Your task to perform on an android device: clear history in the chrome app Image 0: 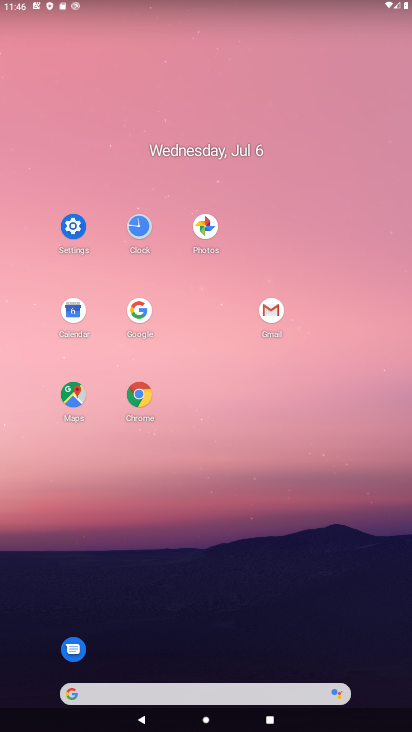
Step 0: click (141, 404)
Your task to perform on an android device: clear history in the chrome app Image 1: 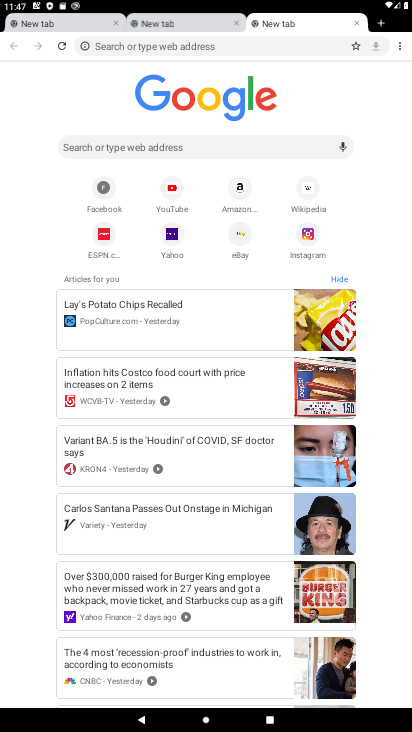
Step 1: click (401, 47)
Your task to perform on an android device: clear history in the chrome app Image 2: 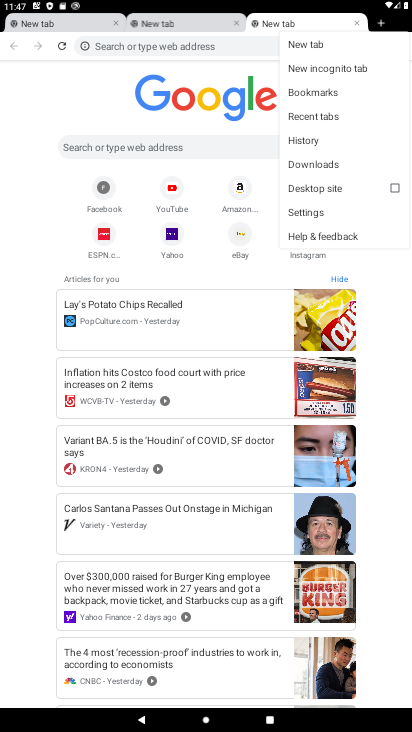
Step 2: click (343, 211)
Your task to perform on an android device: clear history in the chrome app Image 3: 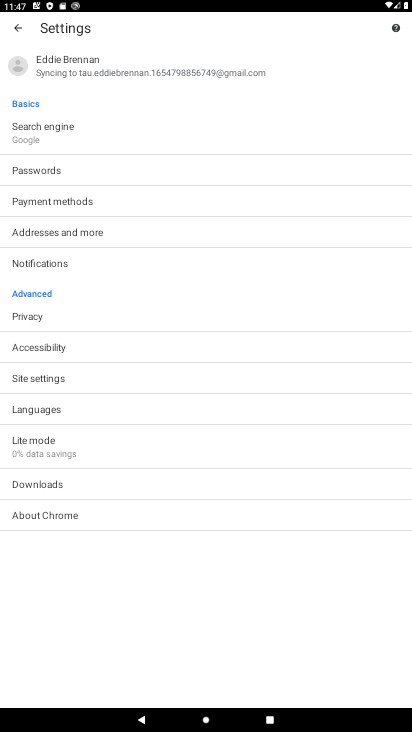
Step 3: click (58, 317)
Your task to perform on an android device: clear history in the chrome app Image 4: 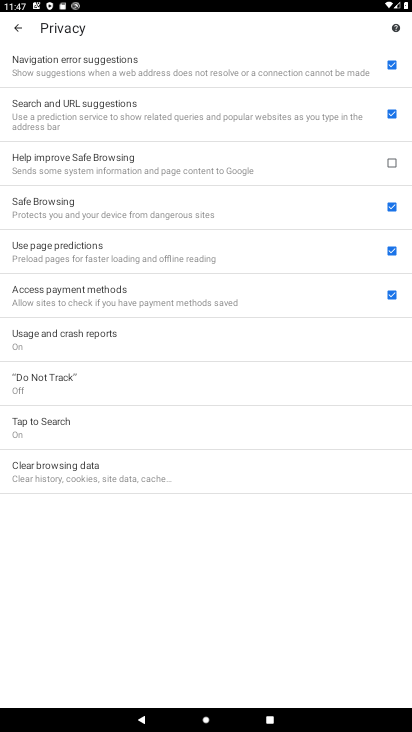
Step 4: click (101, 470)
Your task to perform on an android device: clear history in the chrome app Image 5: 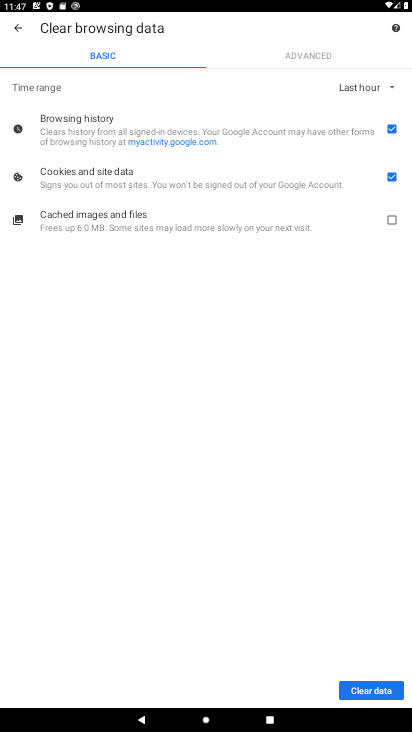
Step 5: click (382, 692)
Your task to perform on an android device: clear history in the chrome app Image 6: 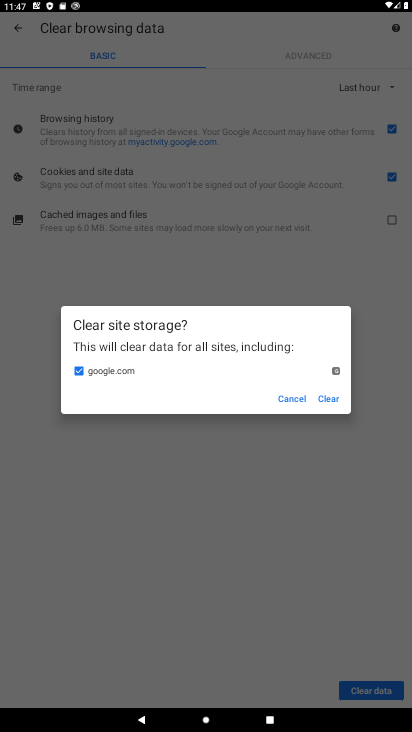
Step 6: click (325, 397)
Your task to perform on an android device: clear history in the chrome app Image 7: 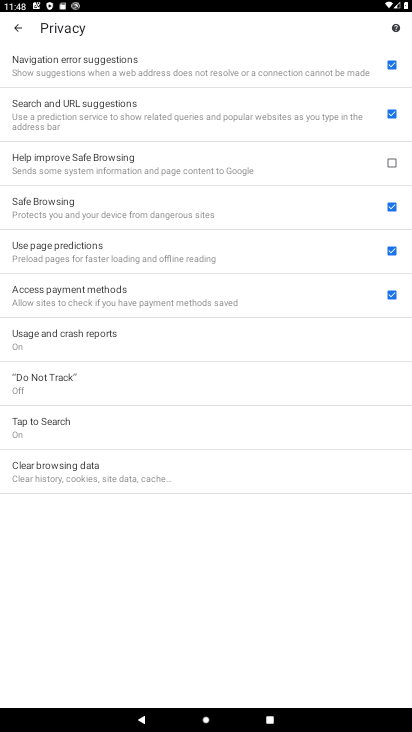
Step 7: task complete